Your task to perform on an android device: turn on translation in the chrome app Image 0: 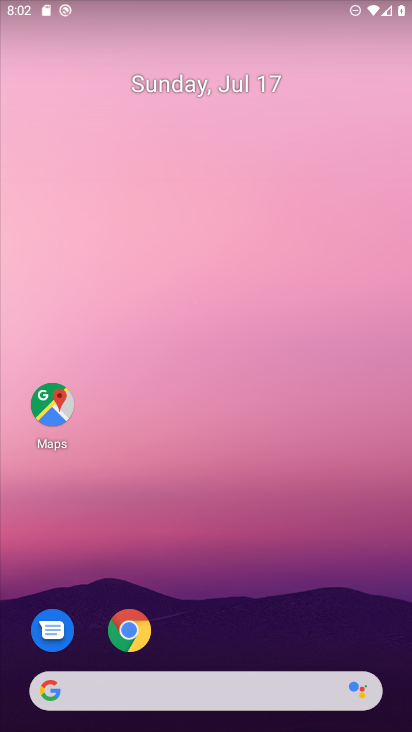
Step 0: drag from (197, 640) to (217, 206)
Your task to perform on an android device: turn on translation in the chrome app Image 1: 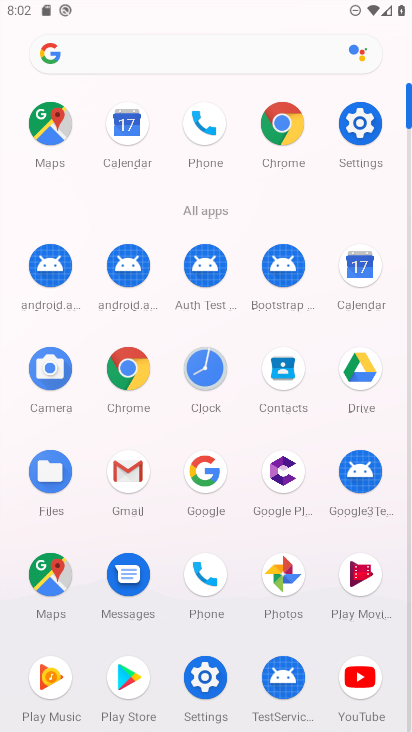
Step 1: click (266, 118)
Your task to perform on an android device: turn on translation in the chrome app Image 2: 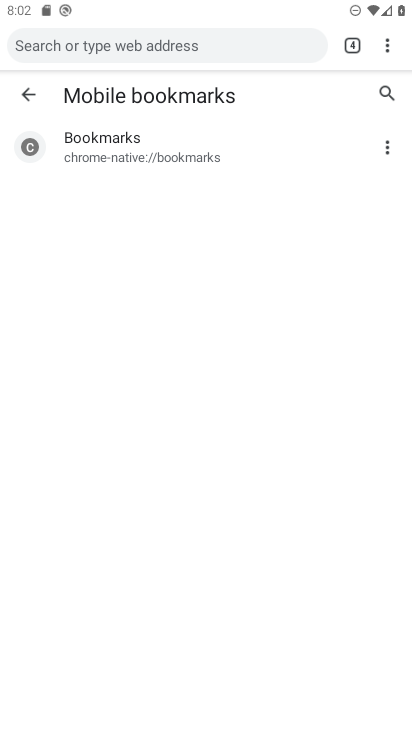
Step 2: click (384, 48)
Your task to perform on an android device: turn on translation in the chrome app Image 3: 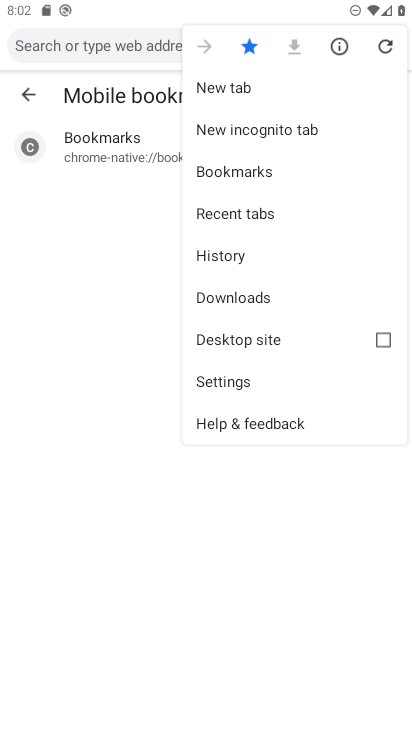
Step 3: click (235, 366)
Your task to perform on an android device: turn on translation in the chrome app Image 4: 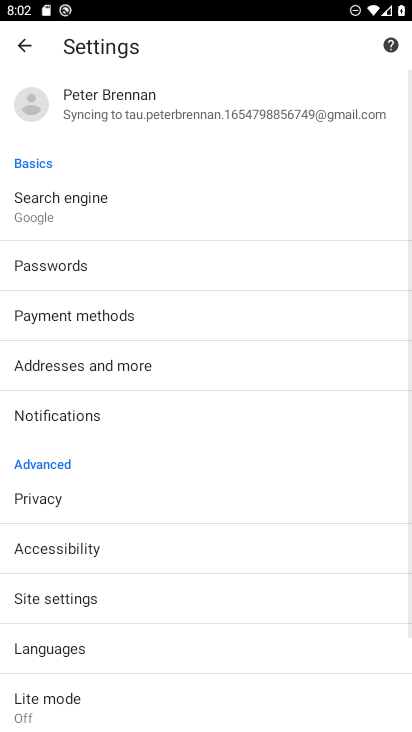
Step 4: click (103, 633)
Your task to perform on an android device: turn on translation in the chrome app Image 5: 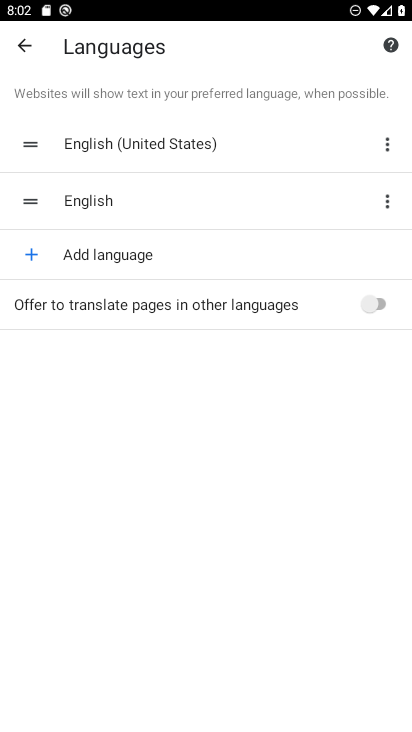
Step 5: click (372, 311)
Your task to perform on an android device: turn on translation in the chrome app Image 6: 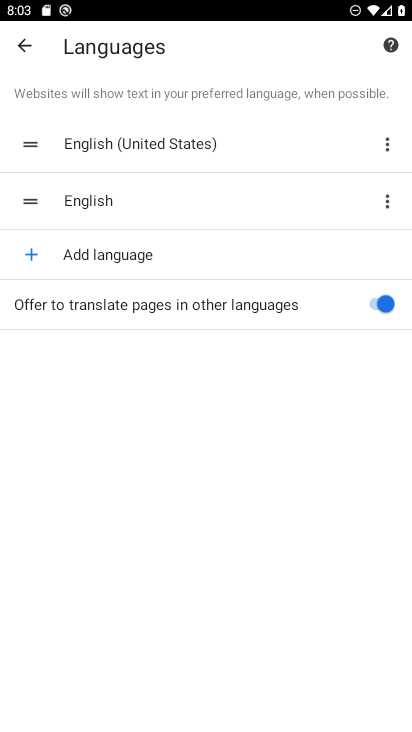
Step 6: task complete